Your task to perform on an android device: open a bookmark in the chrome app Image 0: 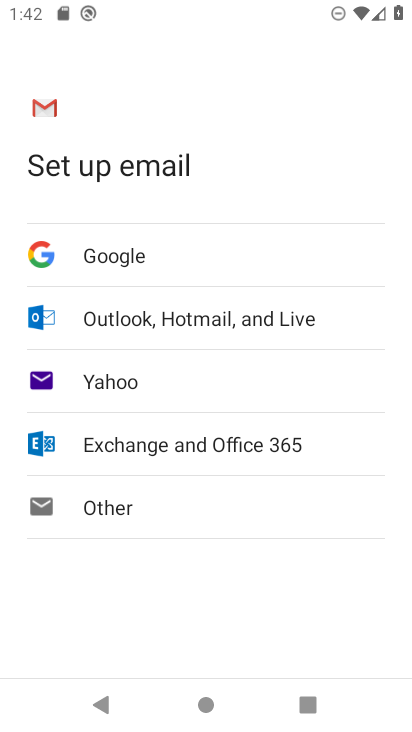
Step 0: press home button
Your task to perform on an android device: open a bookmark in the chrome app Image 1: 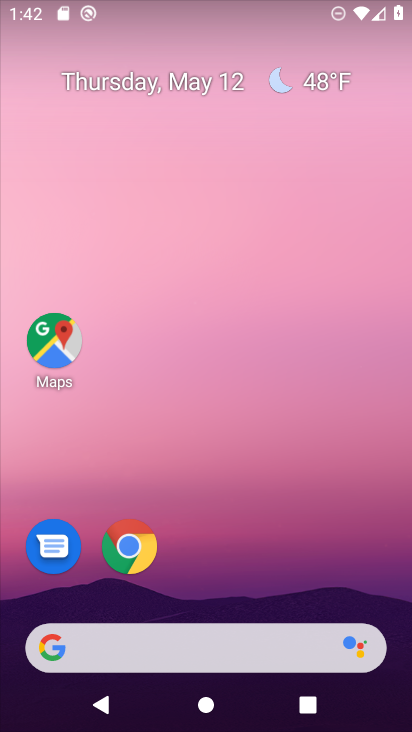
Step 1: drag from (228, 684) to (200, 247)
Your task to perform on an android device: open a bookmark in the chrome app Image 2: 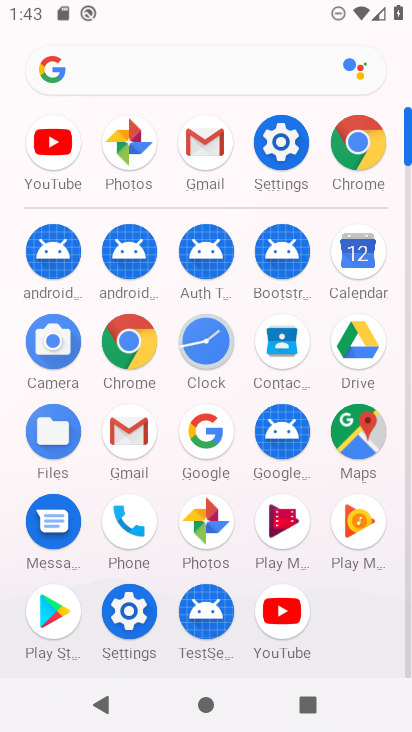
Step 2: click (128, 335)
Your task to perform on an android device: open a bookmark in the chrome app Image 3: 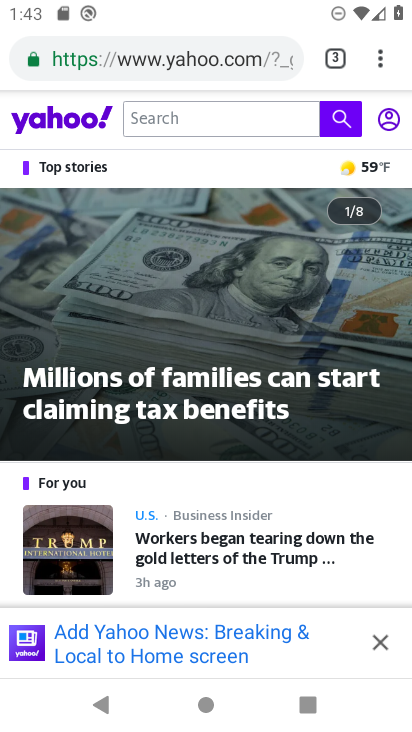
Step 3: click (378, 62)
Your task to perform on an android device: open a bookmark in the chrome app Image 4: 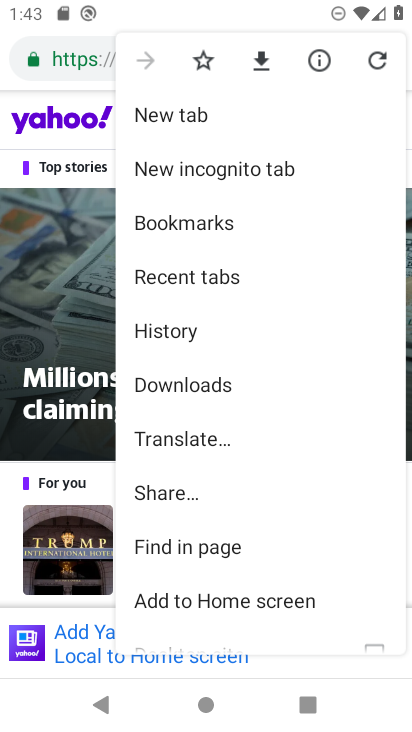
Step 4: click (223, 225)
Your task to perform on an android device: open a bookmark in the chrome app Image 5: 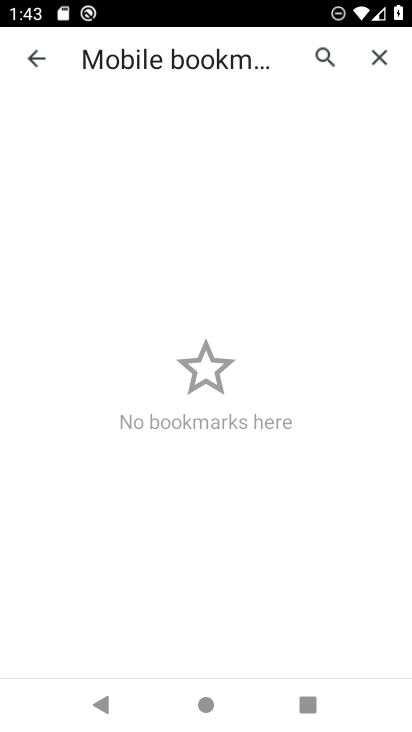
Step 5: task complete